Your task to perform on an android device: toggle notification dots Image 0: 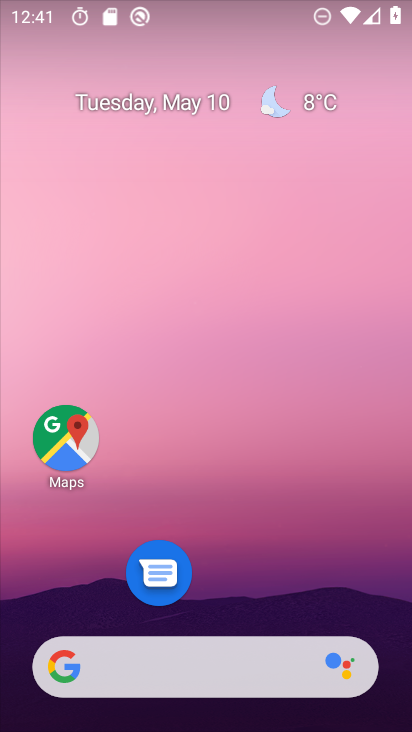
Step 0: drag from (230, 596) to (270, 18)
Your task to perform on an android device: toggle notification dots Image 1: 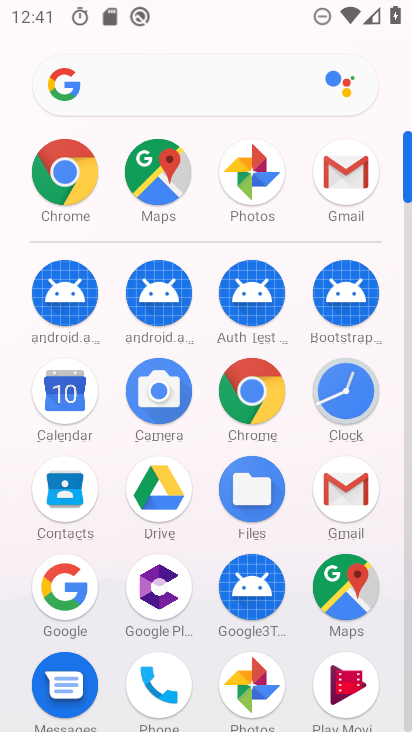
Step 1: drag from (203, 629) to (235, 173)
Your task to perform on an android device: toggle notification dots Image 2: 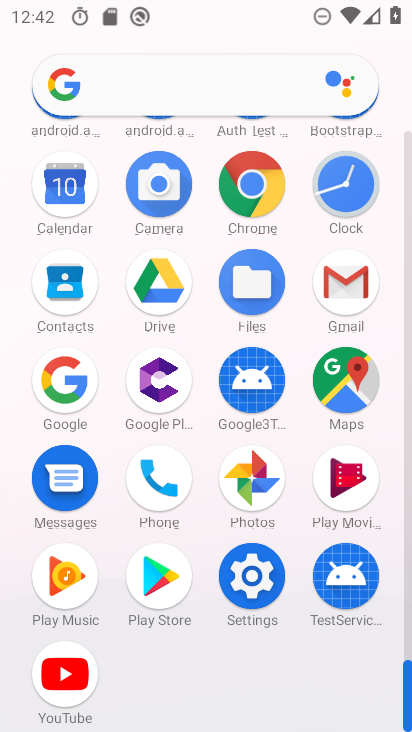
Step 2: click (261, 585)
Your task to perform on an android device: toggle notification dots Image 3: 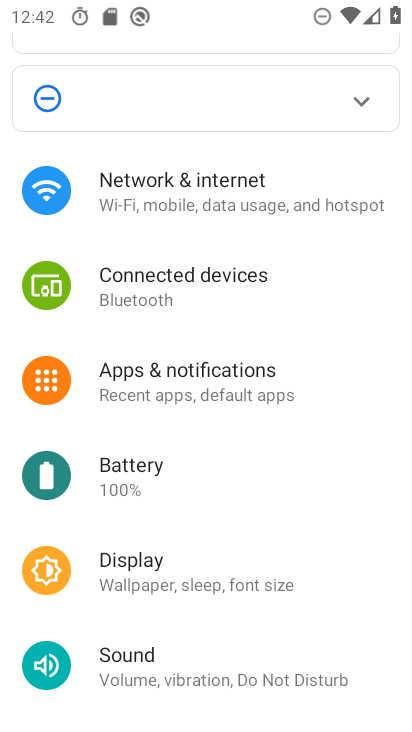
Step 3: drag from (187, 598) to (177, 411)
Your task to perform on an android device: toggle notification dots Image 4: 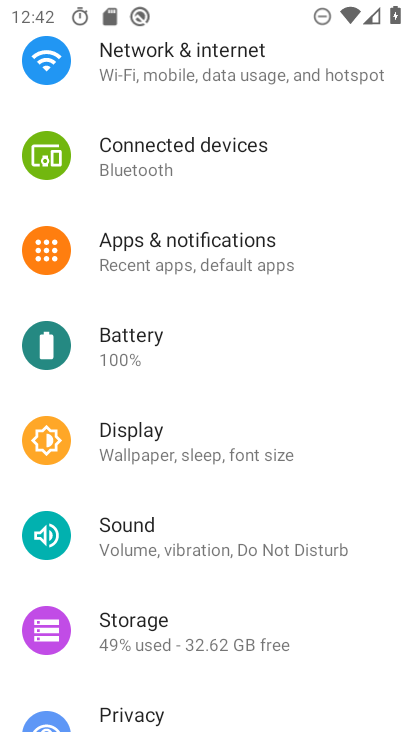
Step 4: click (216, 271)
Your task to perform on an android device: toggle notification dots Image 5: 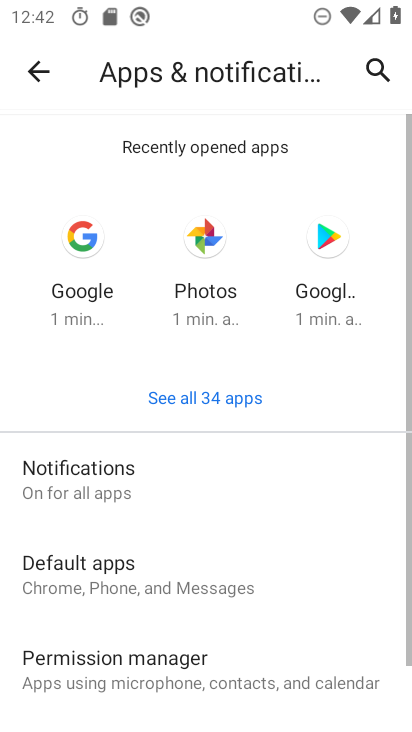
Step 5: click (126, 494)
Your task to perform on an android device: toggle notification dots Image 6: 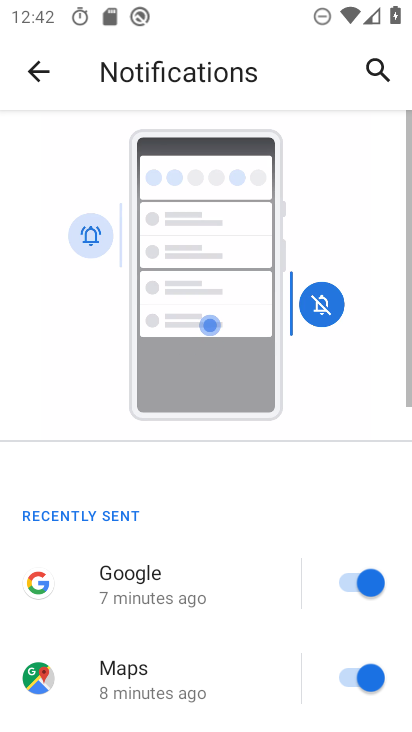
Step 6: drag from (176, 595) to (220, 311)
Your task to perform on an android device: toggle notification dots Image 7: 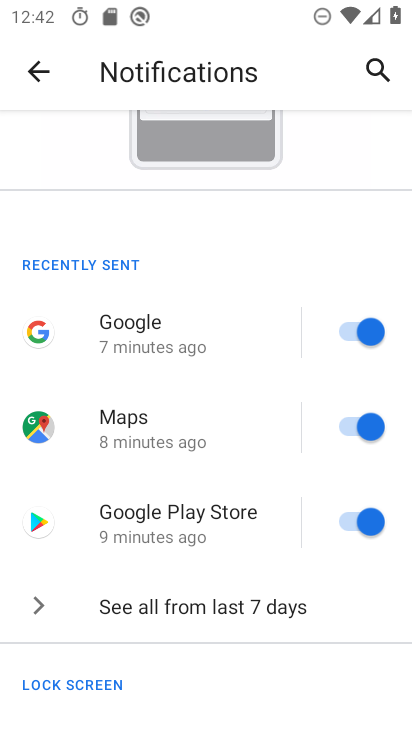
Step 7: drag from (165, 594) to (236, 201)
Your task to perform on an android device: toggle notification dots Image 8: 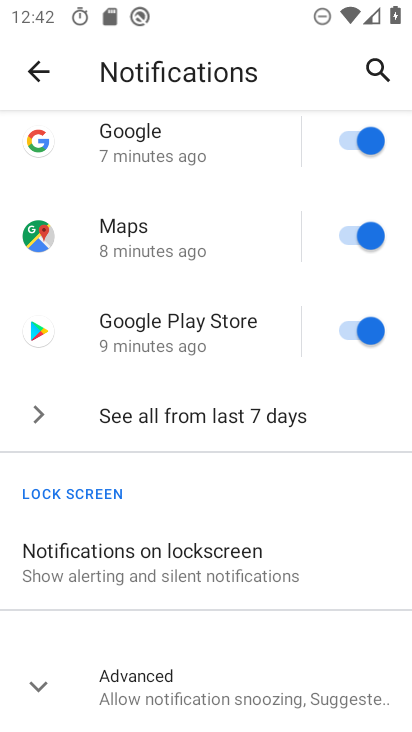
Step 8: click (158, 675)
Your task to perform on an android device: toggle notification dots Image 9: 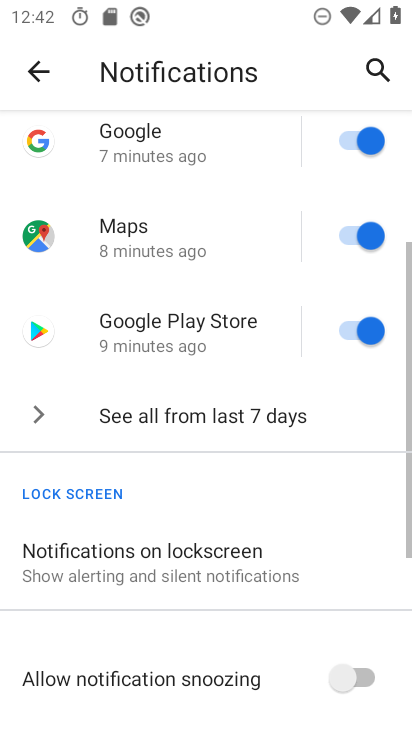
Step 9: drag from (200, 618) to (264, 160)
Your task to perform on an android device: toggle notification dots Image 10: 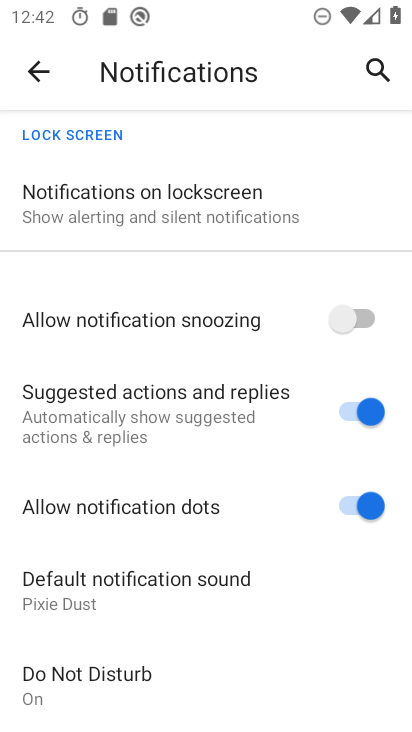
Step 10: click (333, 509)
Your task to perform on an android device: toggle notification dots Image 11: 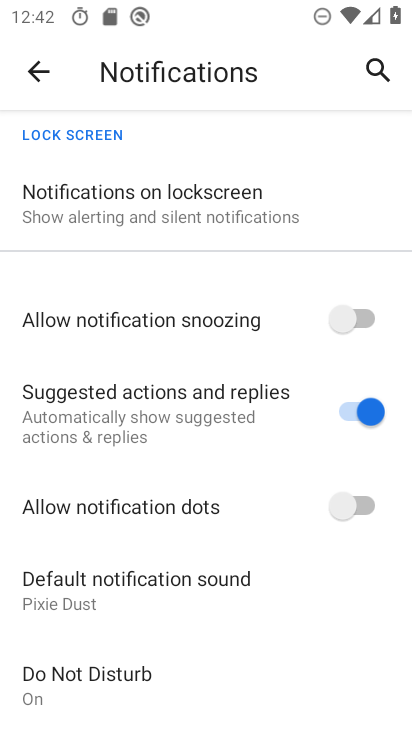
Step 11: task complete